Your task to perform on an android device: show emergency info Image 0: 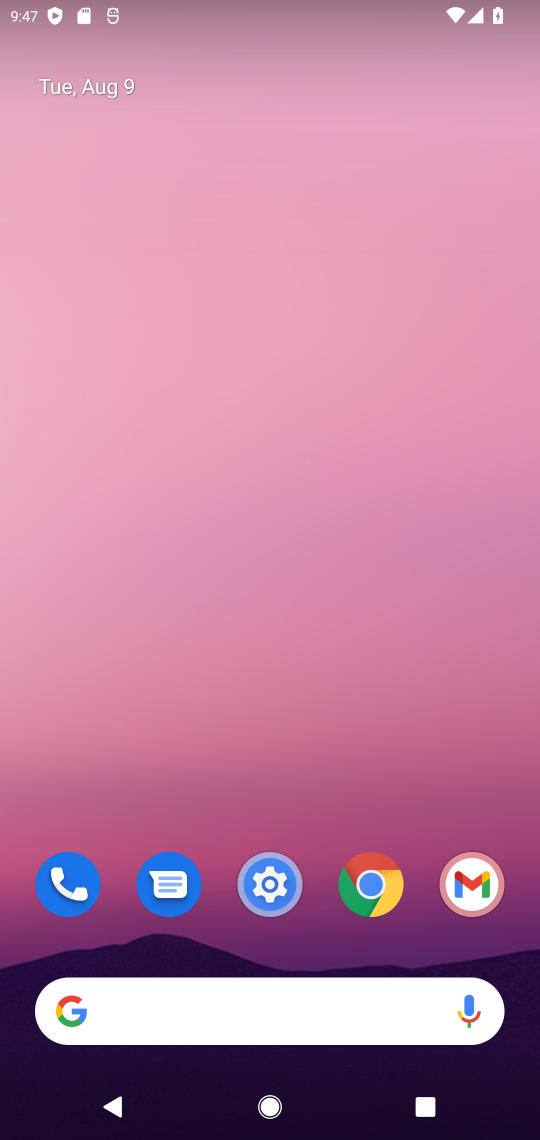
Step 0: click (271, 885)
Your task to perform on an android device: show emergency info Image 1: 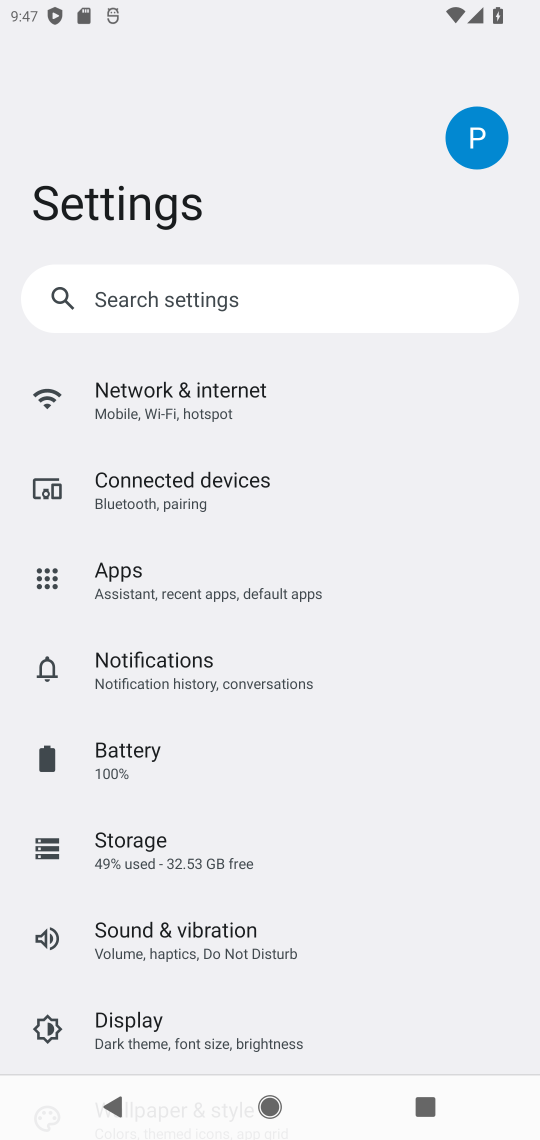
Step 1: drag from (201, 979) to (277, 750)
Your task to perform on an android device: show emergency info Image 2: 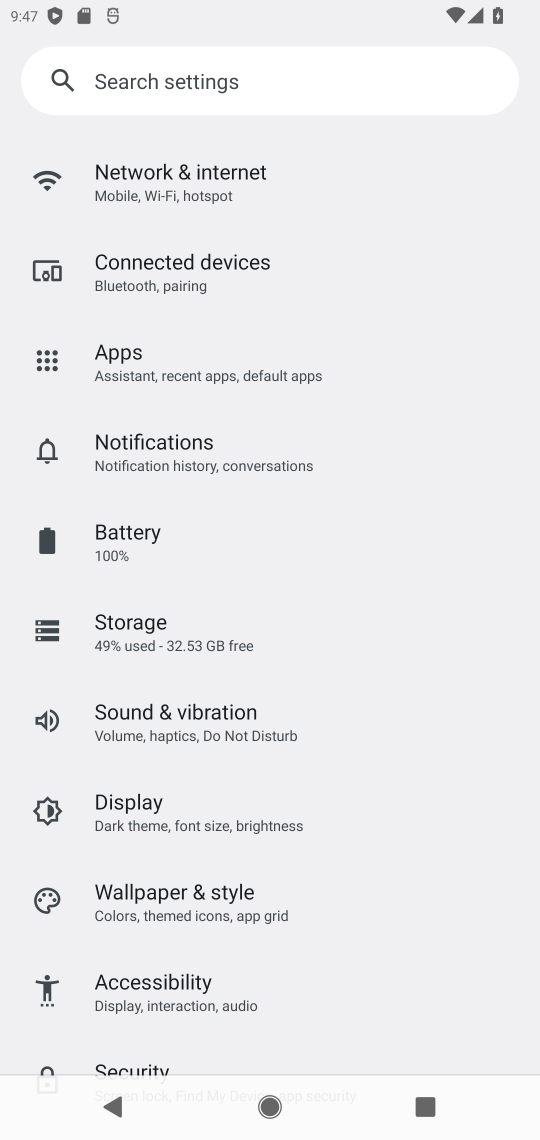
Step 2: drag from (177, 863) to (319, 669)
Your task to perform on an android device: show emergency info Image 3: 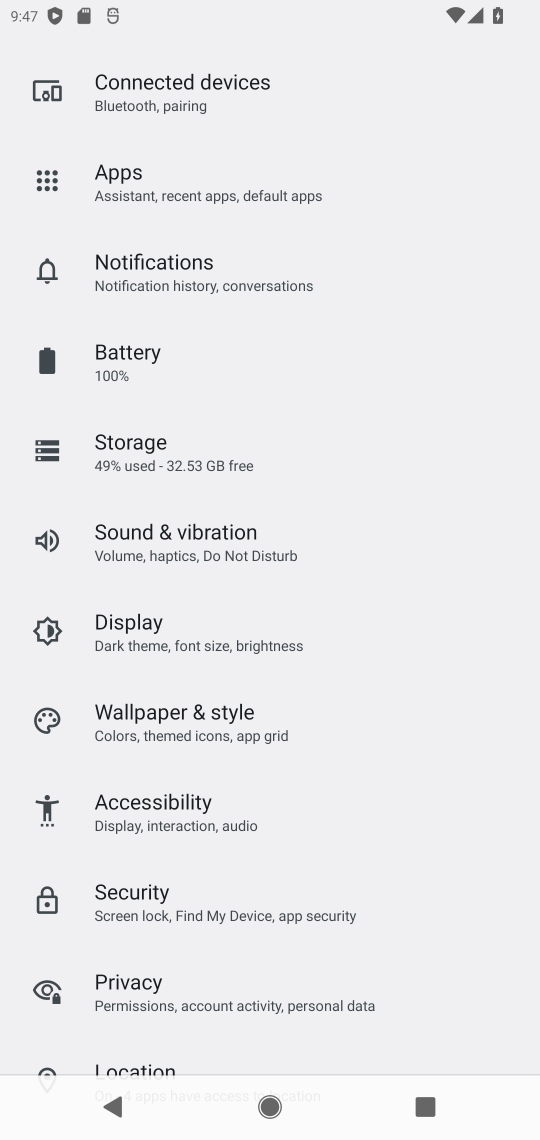
Step 3: drag from (200, 964) to (294, 807)
Your task to perform on an android device: show emergency info Image 4: 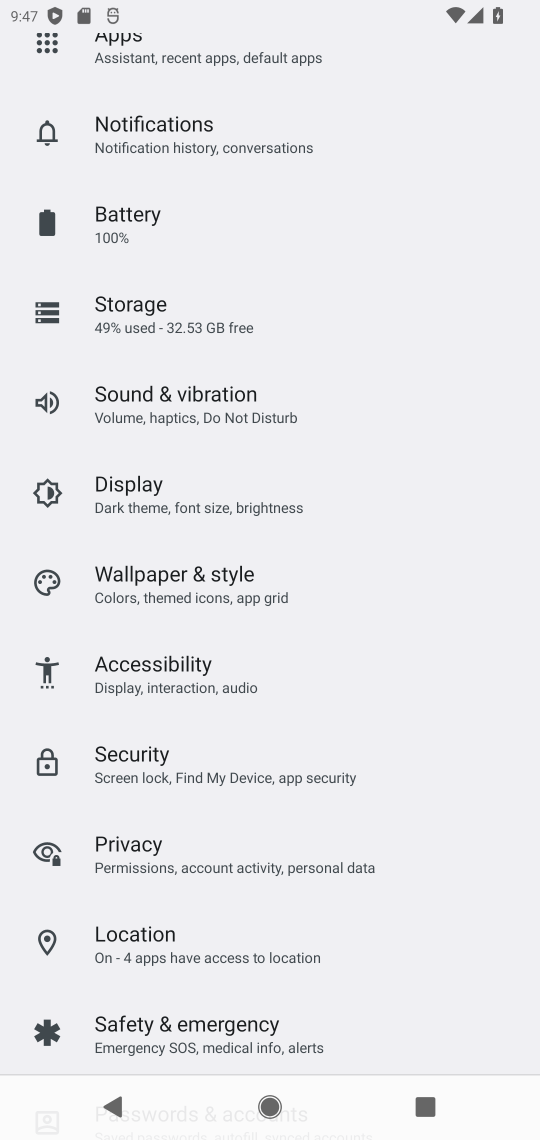
Step 4: drag from (202, 977) to (317, 788)
Your task to perform on an android device: show emergency info Image 5: 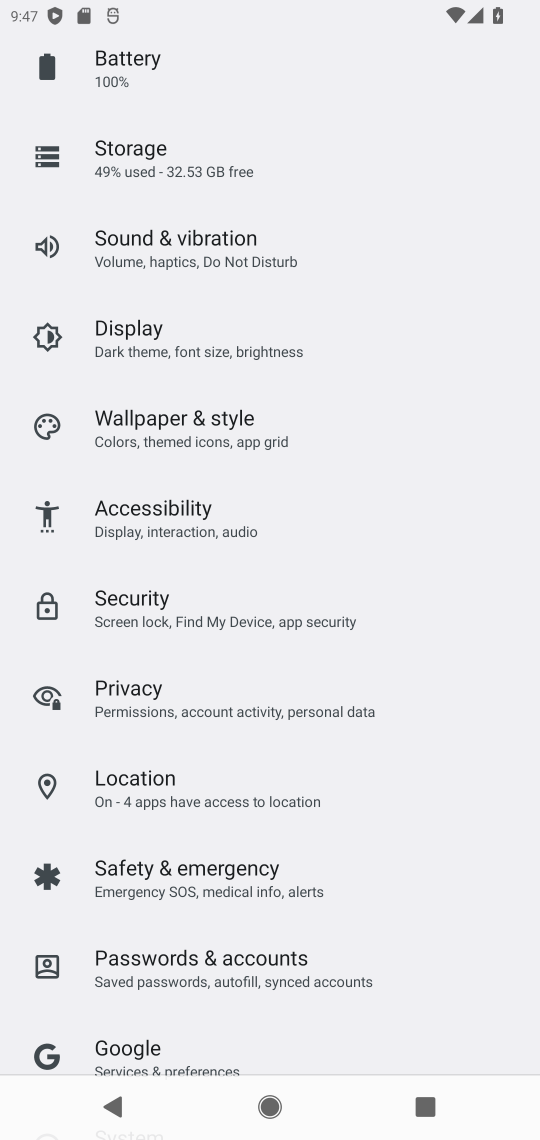
Step 5: click (223, 895)
Your task to perform on an android device: show emergency info Image 6: 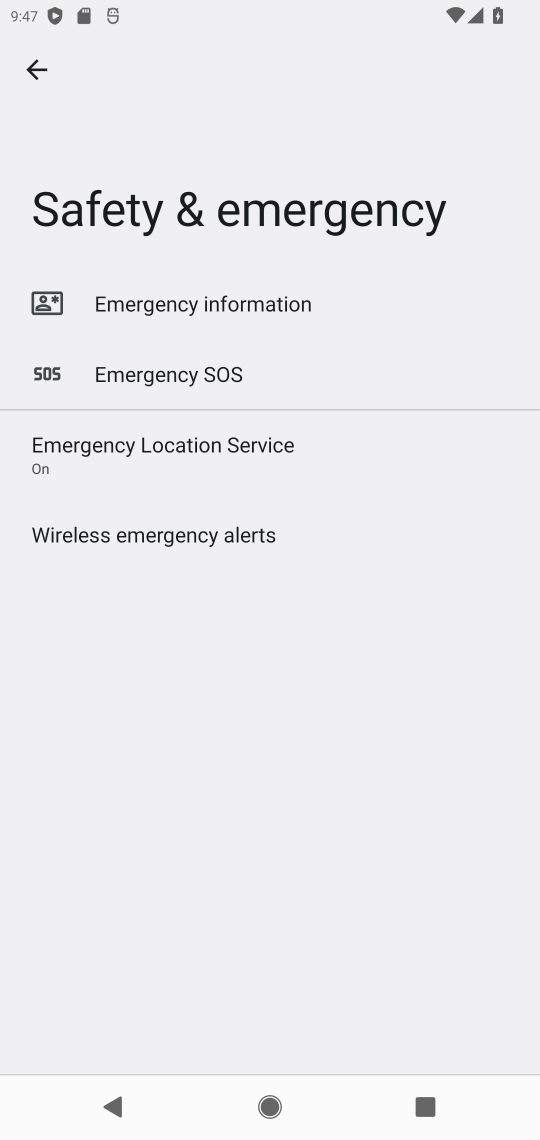
Step 6: click (293, 314)
Your task to perform on an android device: show emergency info Image 7: 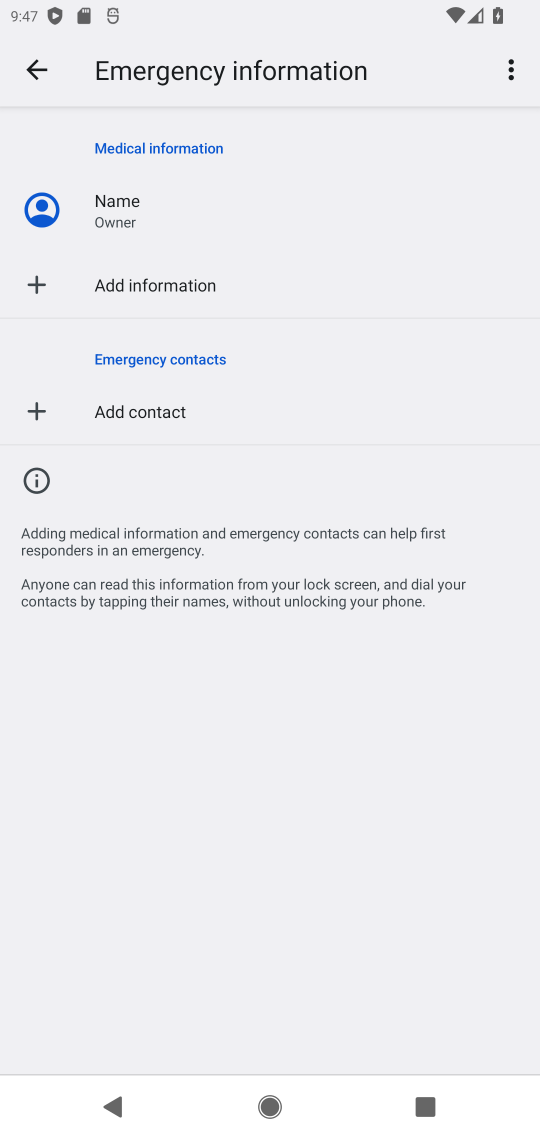
Step 7: task complete